Your task to perform on an android device: Search for pizza restaurants on Maps Image 0: 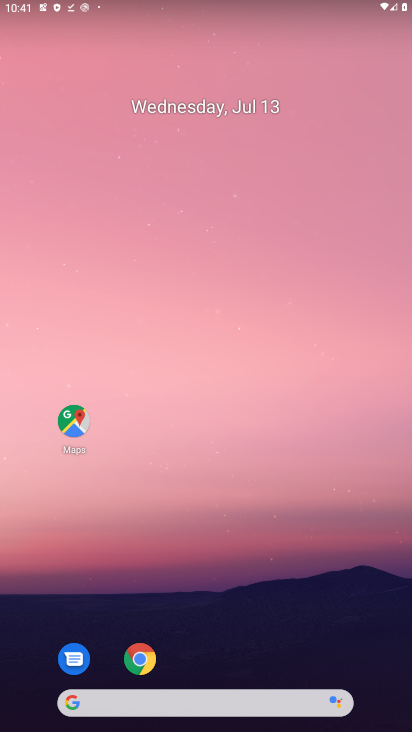
Step 0: drag from (294, 688) to (167, 283)
Your task to perform on an android device: Search for pizza restaurants on Maps Image 1: 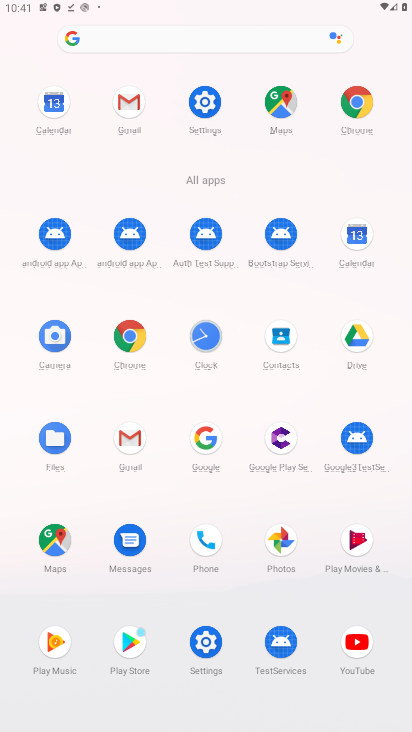
Step 1: click (56, 539)
Your task to perform on an android device: Search for pizza restaurants on Maps Image 2: 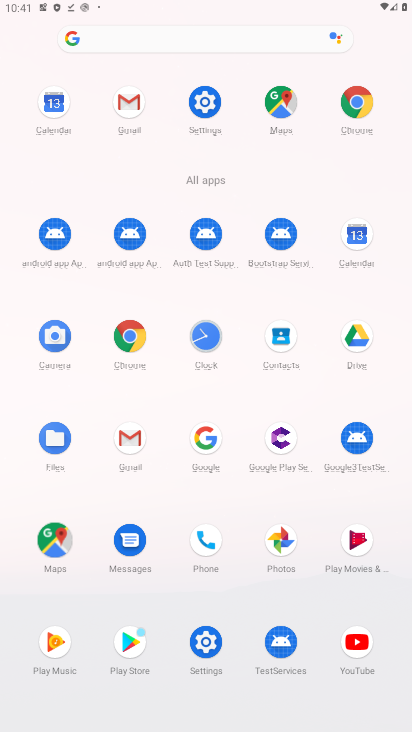
Step 2: click (59, 536)
Your task to perform on an android device: Search for pizza restaurants on Maps Image 3: 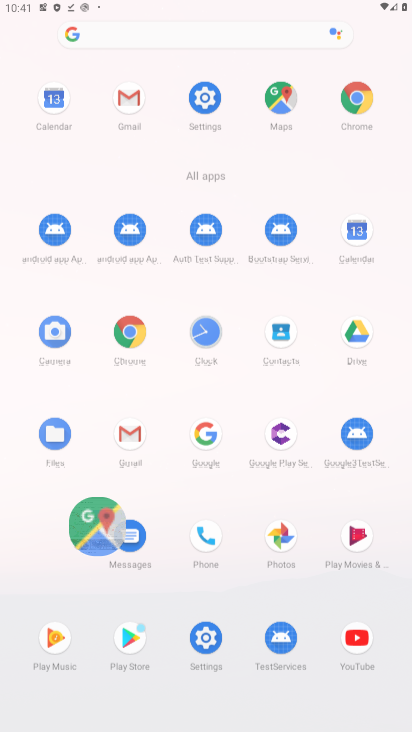
Step 3: click (61, 537)
Your task to perform on an android device: Search for pizza restaurants on Maps Image 4: 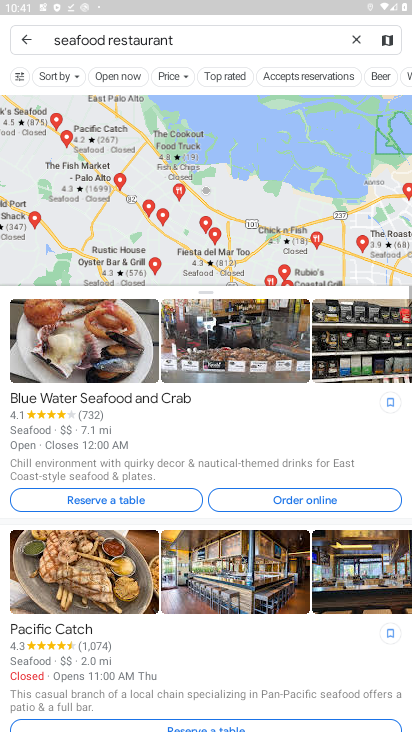
Step 4: click (207, 37)
Your task to perform on an android device: Search for pizza restaurants on Maps Image 5: 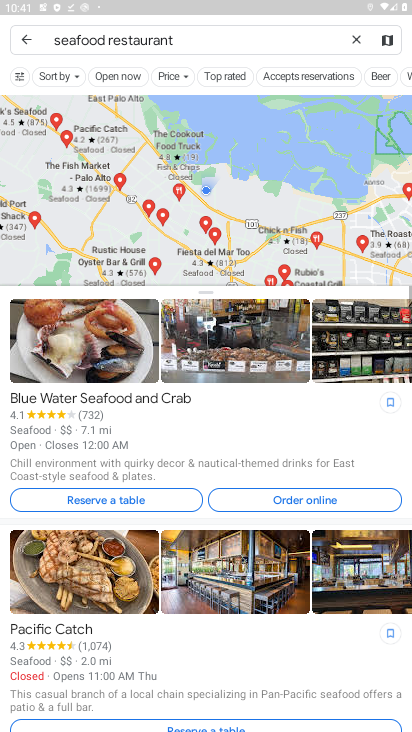
Step 5: click (210, 38)
Your task to perform on an android device: Search for pizza restaurants on Maps Image 6: 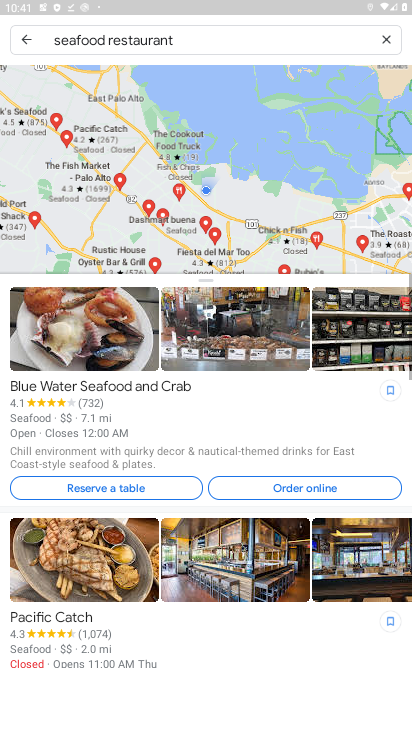
Step 6: click (210, 38)
Your task to perform on an android device: Search for pizza restaurants on Maps Image 7: 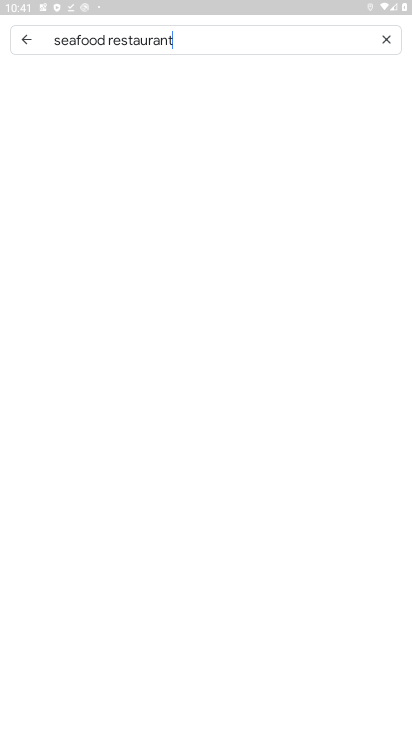
Step 7: click (170, 32)
Your task to perform on an android device: Search for pizza restaurants on Maps Image 8: 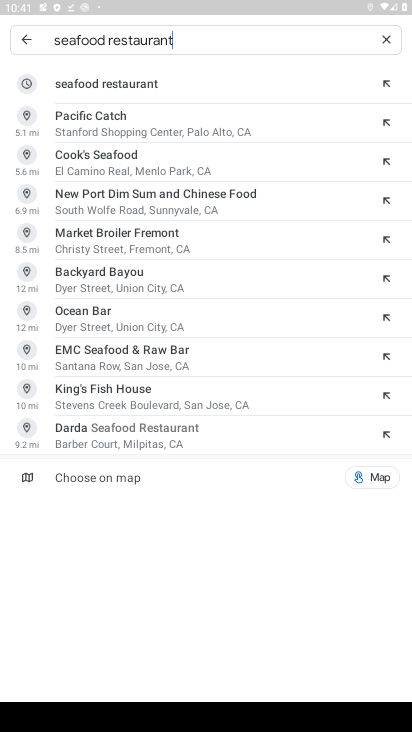
Step 8: click (379, 35)
Your task to perform on an android device: Search for pizza restaurants on Maps Image 9: 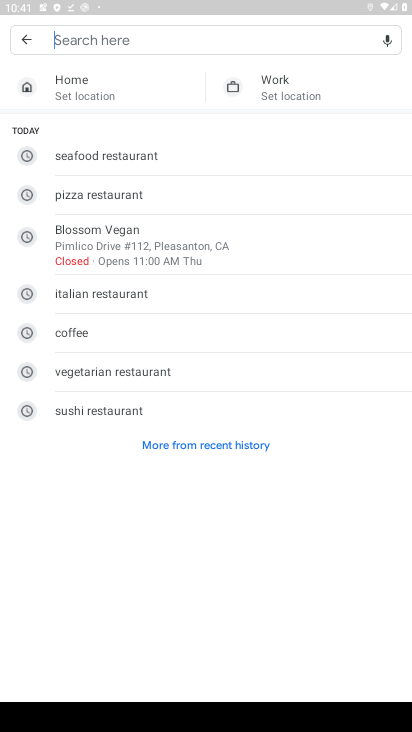
Step 9: click (379, 35)
Your task to perform on an android device: Search for pizza restaurants on Maps Image 10: 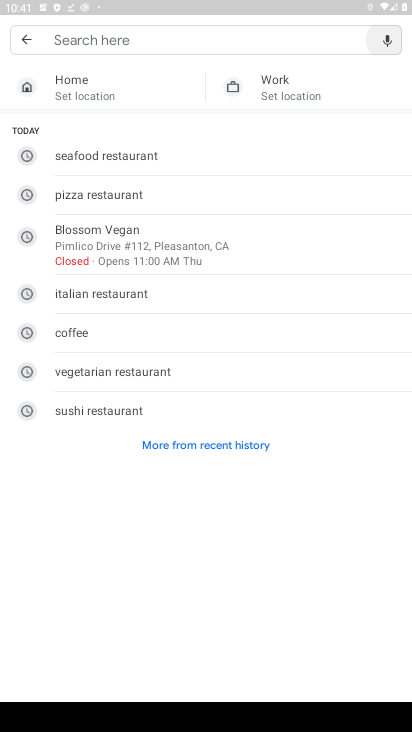
Step 10: click (379, 35)
Your task to perform on an android device: Search for pizza restaurants on Maps Image 11: 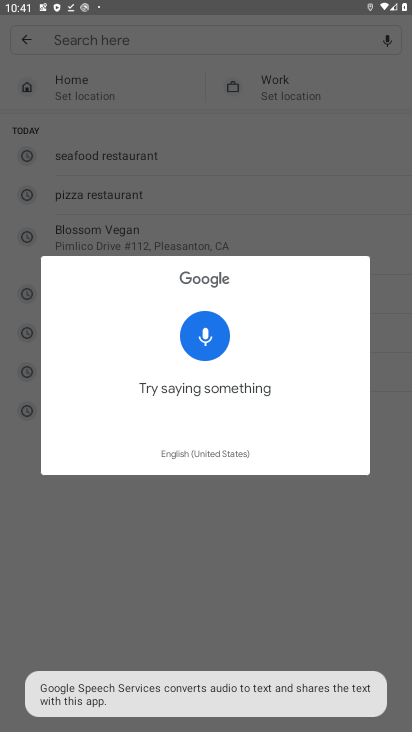
Step 11: click (379, 35)
Your task to perform on an android device: Search for pizza restaurants on Maps Image 12: 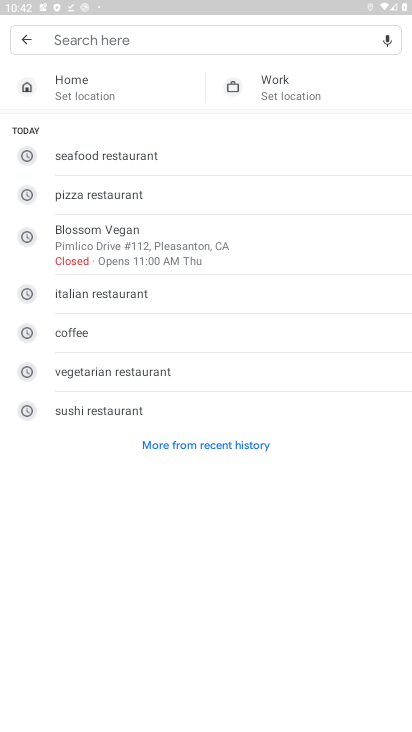
Step 12: type "pizza restaurants"
Your task to perform on an android device: Search for pizza restaurants on Maps Image 13: 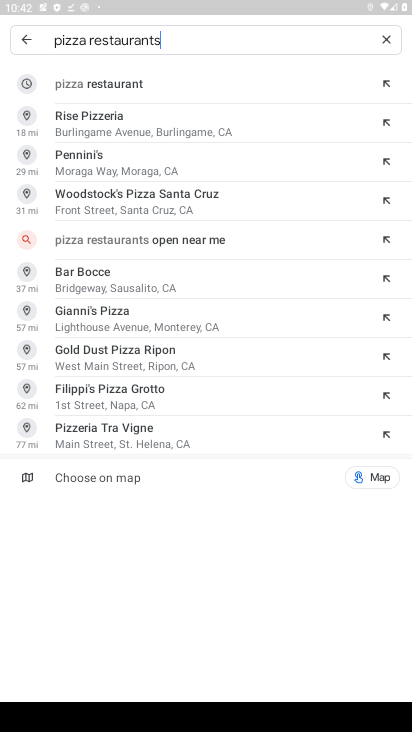
Step 13: click (118, 82)
Your task to perform on an android device: Search for pizza restaurants on Maps Image 14: 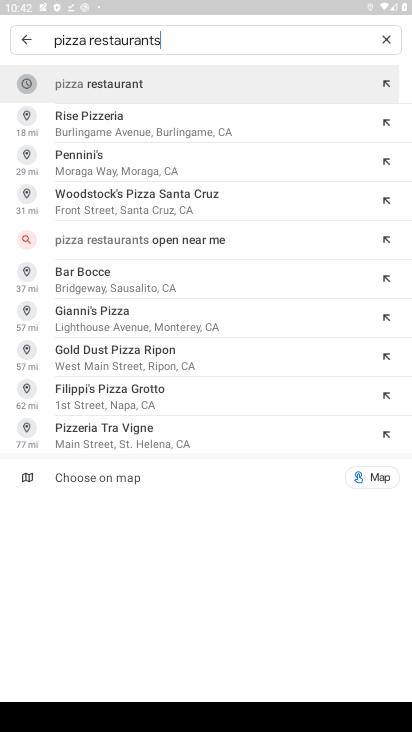
Step 14: click (123, 81)
Your task to perform on an android device: Search for pizza restaurants on Maps Image 15: 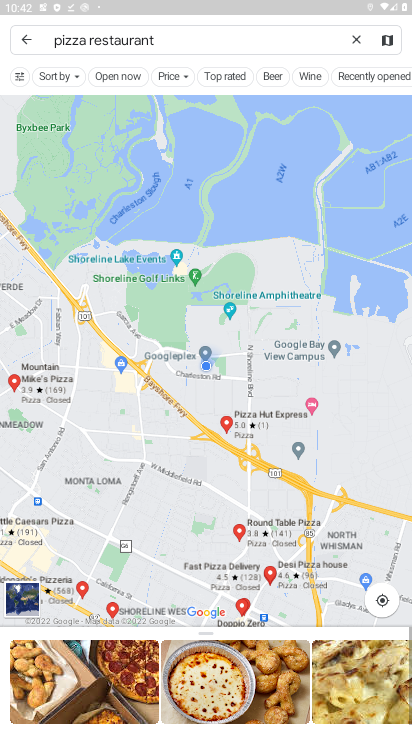
Step 15: task complete